Your task to perform on an android device: open a new tab in the chrome app Image 0: 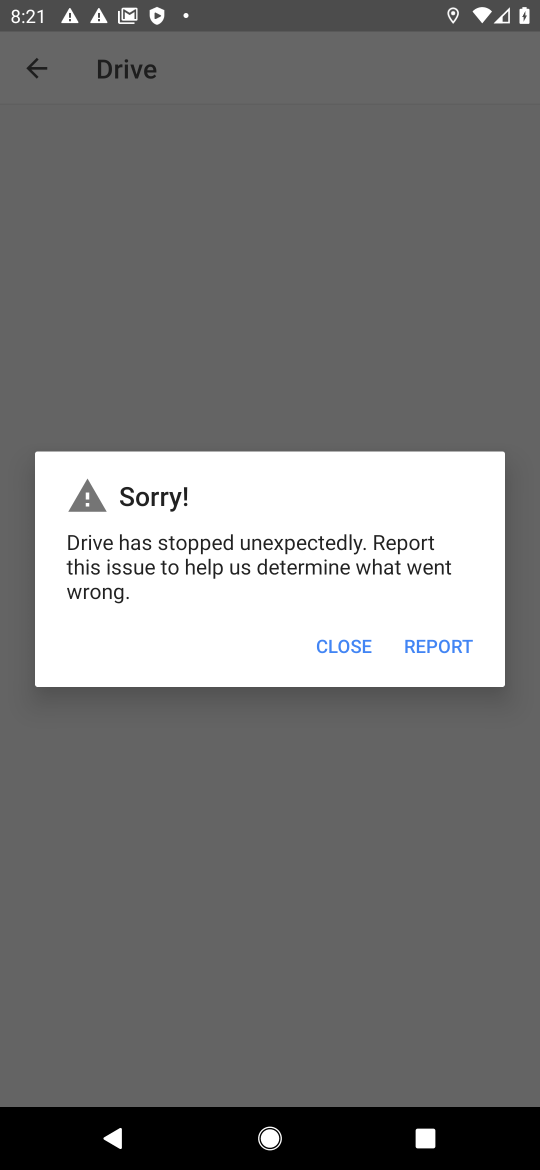
Step 0: press home button
Your task to perform on an android device: open a new tab in the chrome app Image 1: 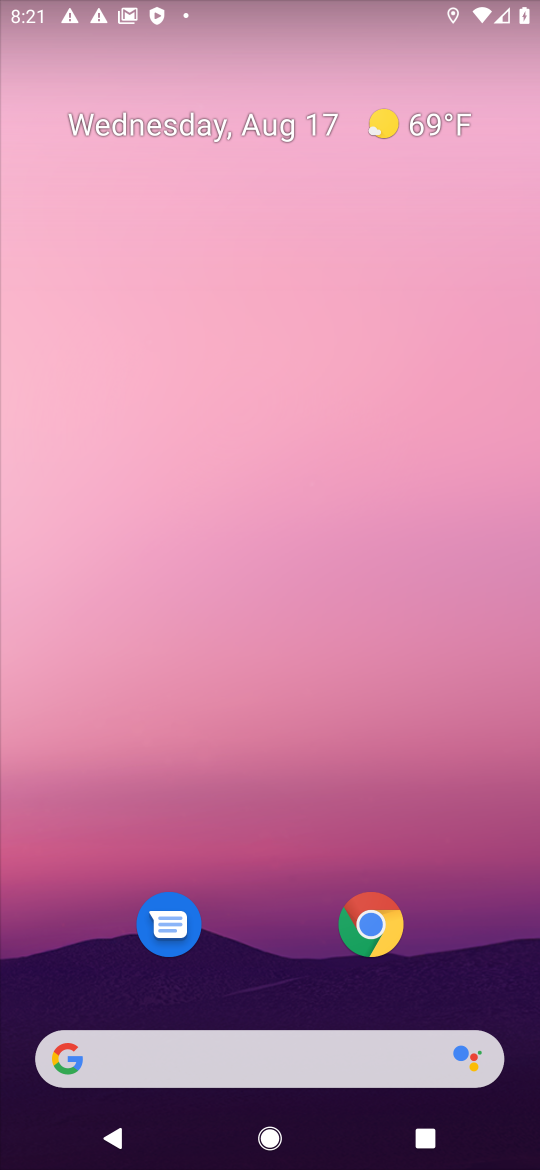
Step 1: drag from (217, 959) to (532, 18)
Your task to perform on an android device: open a new tab in the chrome app Image 2: 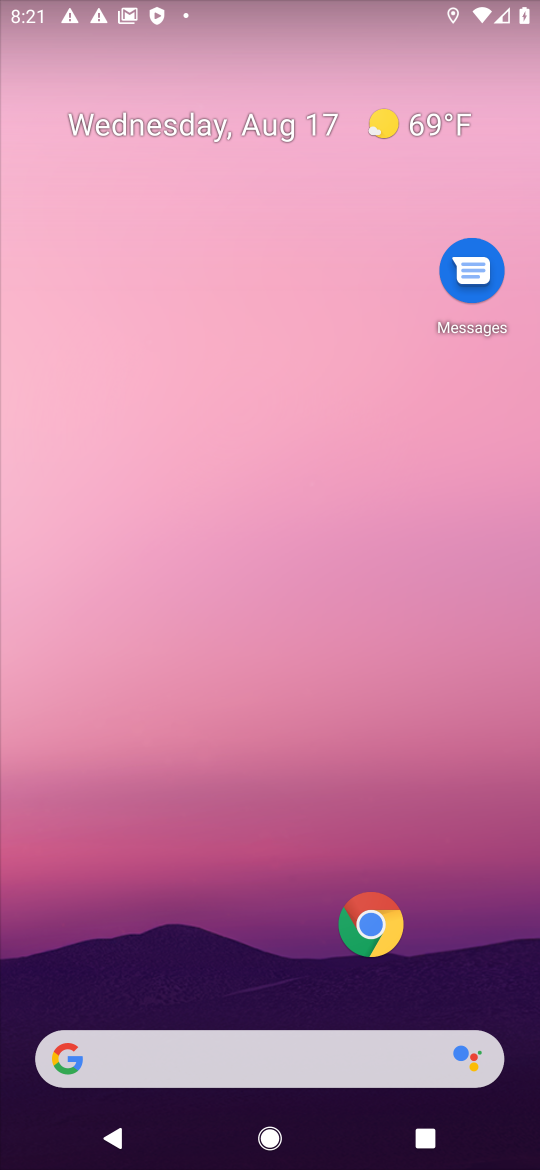
Step 2: drag from (190, 955) to (335, 0)
Your task to perform on an android device: open a new tab in the chrome app Image 3: 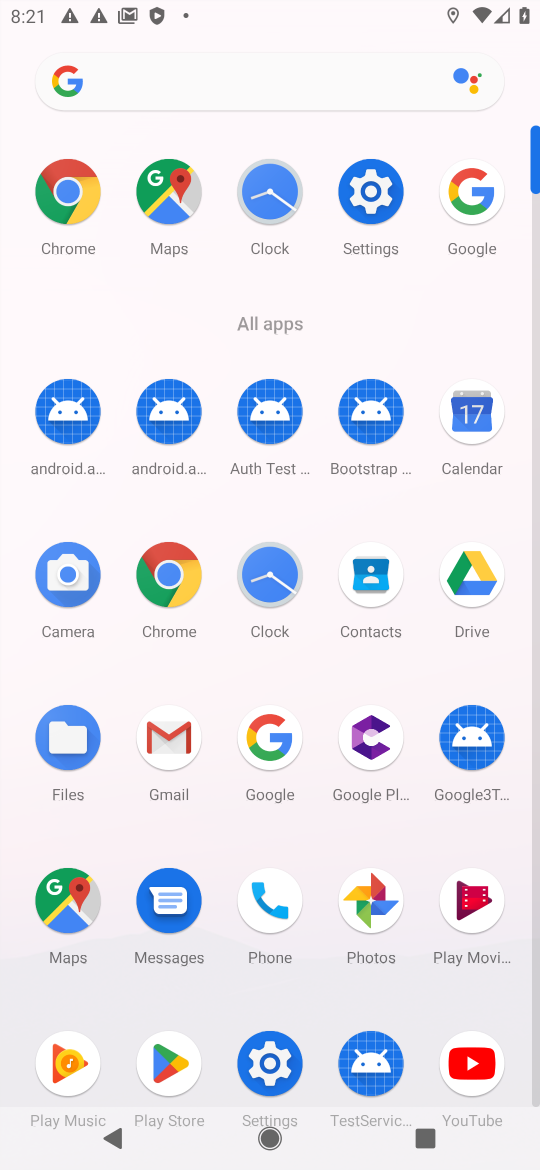
Step 3: click (177, 579)
Your task to perform on an android device: open a new tab in the chrome app Image 4: 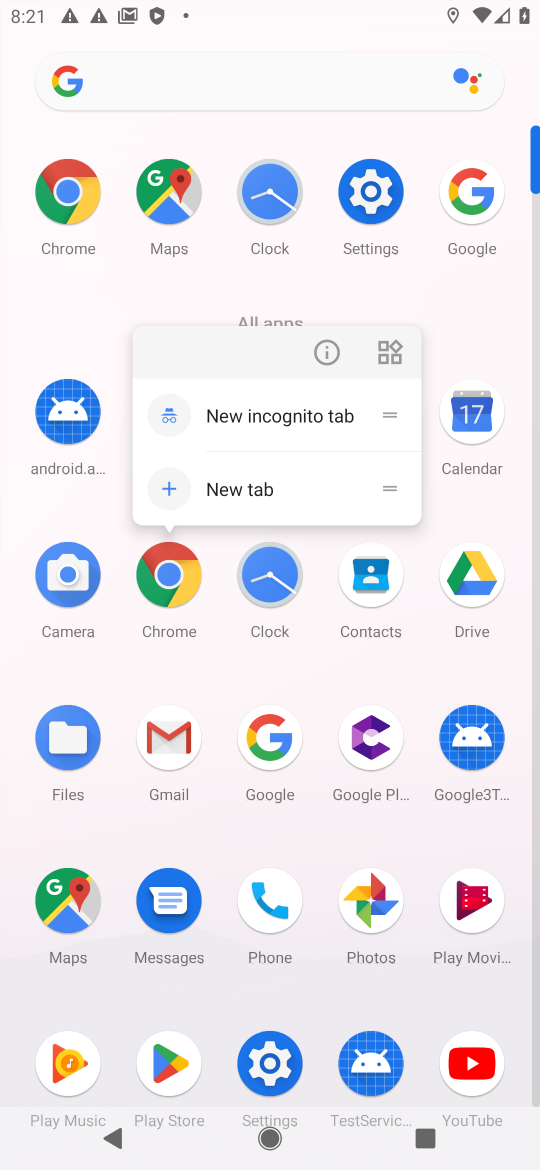
Step 4: click (179, 580)
Your task to perform on an android device: open a new tab in the chrome app Image 5: 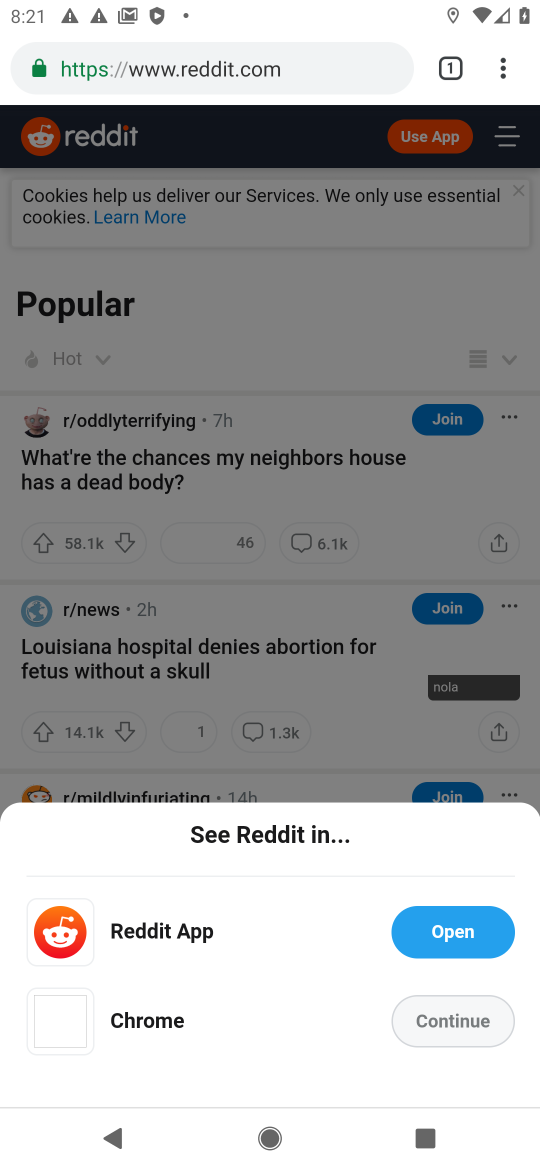
Step 5: click (211, 59)
Your task to perform on an android device: open a new tab in the chrome app Image 6: 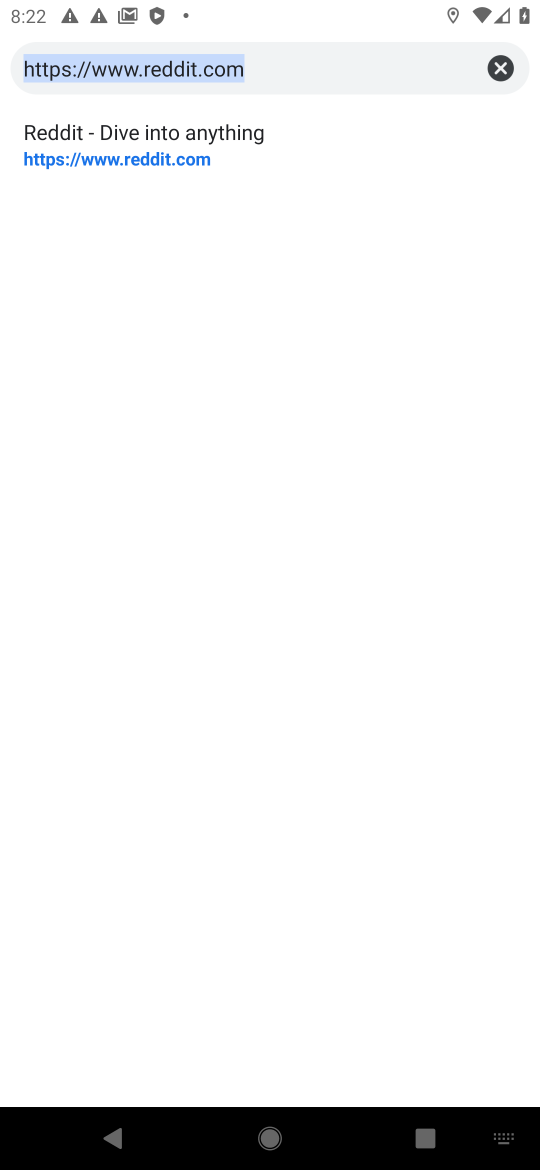
Step 6: click (499, 62)
Your task to perform on an android device: open a new tab in the chrome app Image 7: 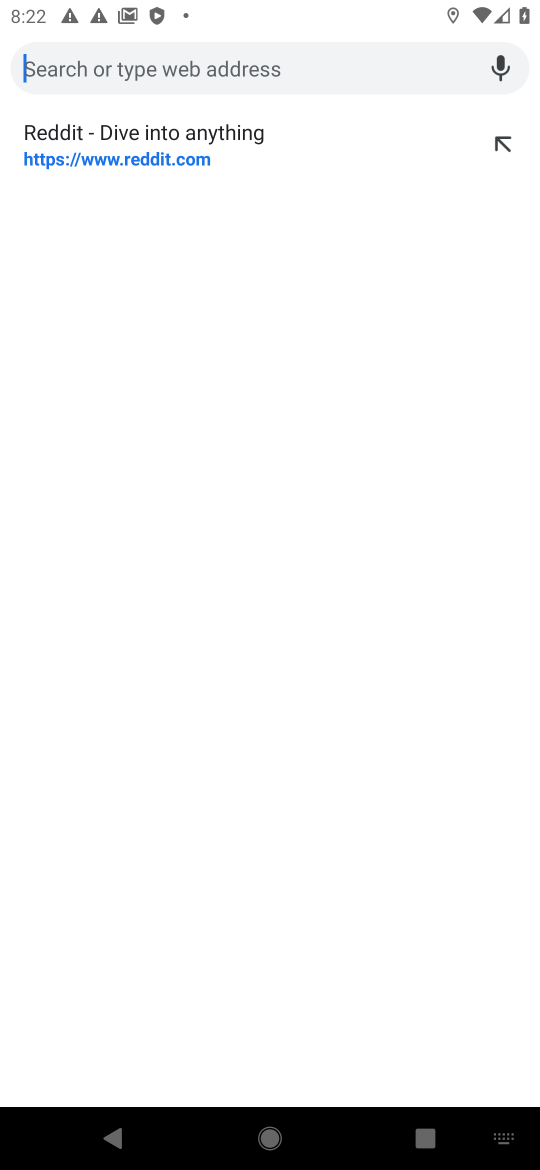
Step 7: task complete